Your task to perform on an android device: delete location history Image 0: 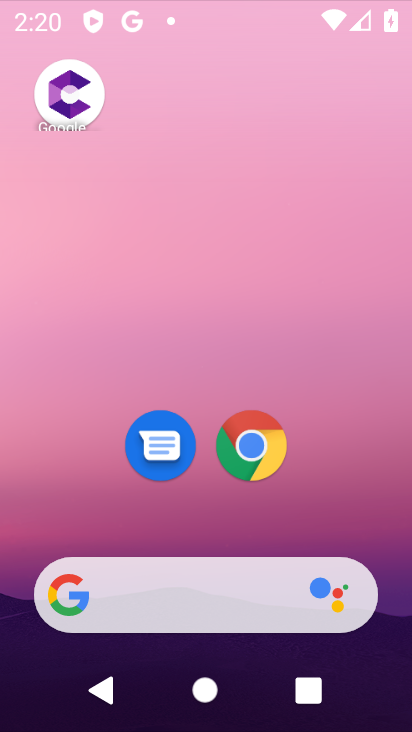
Step 0: click (203, 165)
Your task to perform on an android device: delete location history Image 1: 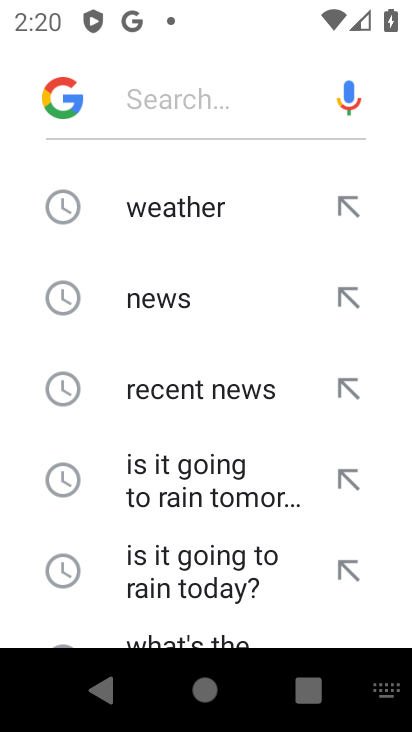
Step 1: press home button
Your task to perform on an android device: delete location history Image 2: 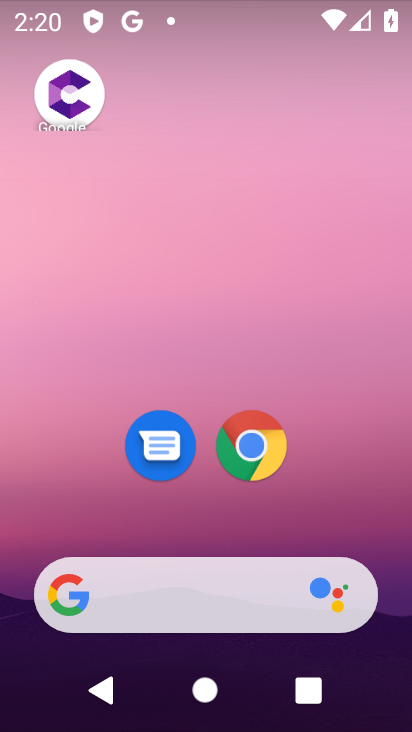
Step 2: drag from (226, 541) to (229, 194)
Your task to perform on an android device: delete location history Image 3: 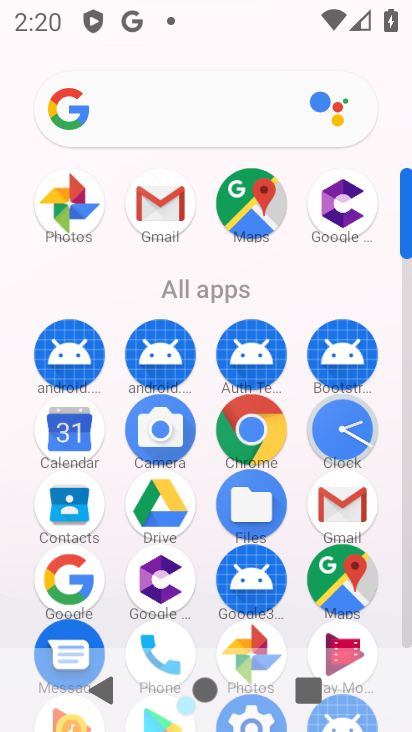
Step 3: drag from (176, 611) to (194, 259)
Your task to perform on an android device: delete location history Image 4: 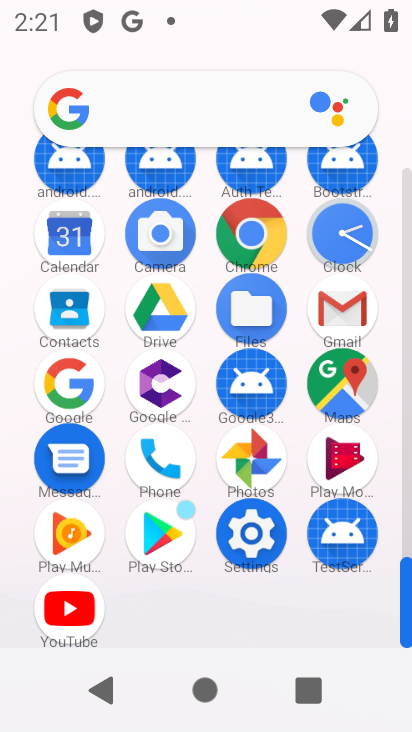
Step 4: click (256, 538)
Your task to perform on an android device: delete location history Image 5: 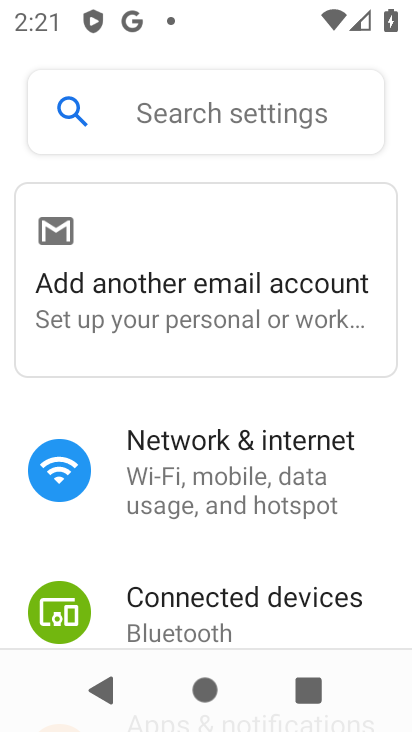
Step 5: drag from (190, 632) to (210, 208)
Your task to perform on an android device: delete location history Image 6: 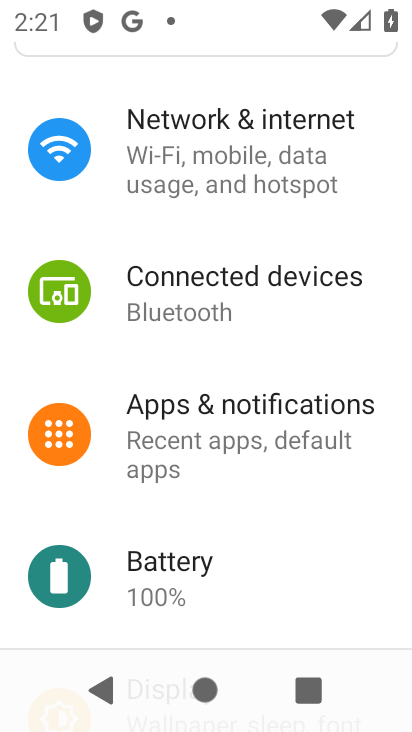
Step 6: drag from (209, 587) to (235, 191)
Your task to perform on an android device: delete location history Image 7: 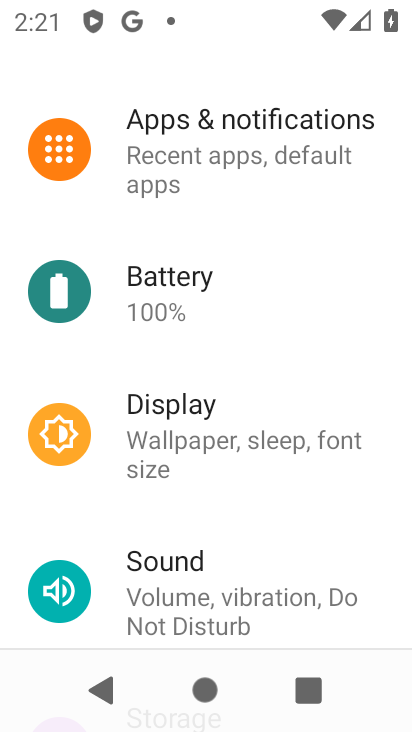
Step 7: drag from (211, 552) to (219, 178)
Your task to perform on an android device: delete location history Image 8: 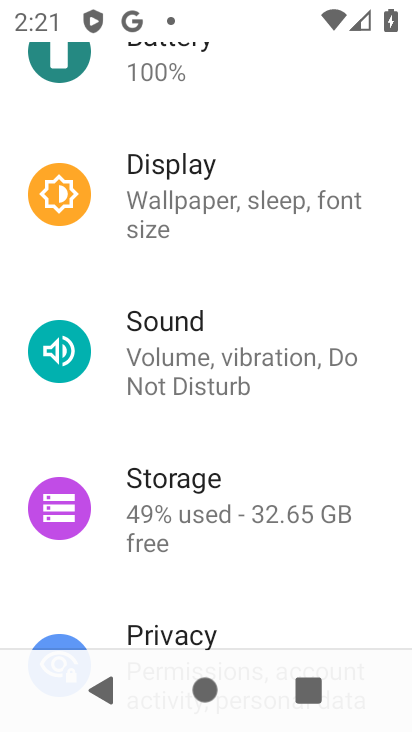
Step 8: drag from (207, 606) to (230, 271)
Your task to perform on an android device: delete location history Image 9: 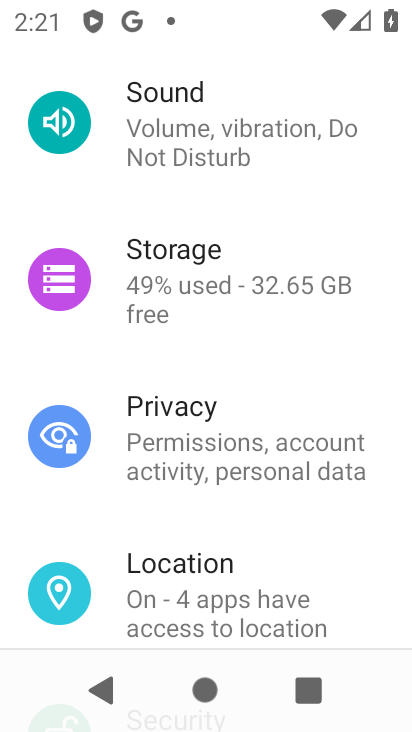
Step 9: click (196, 608)
Your task to perform on an android device: delete location history Image 10: 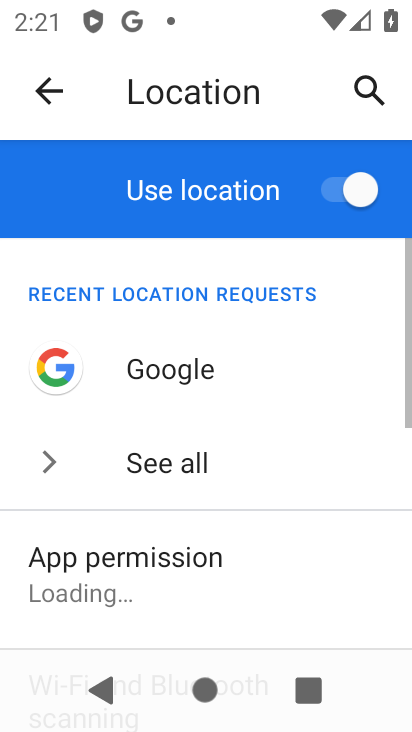
Step 10: drag from (198, 621) to (215, 240)
Your task to perform on an android device: delete location history Image 11: 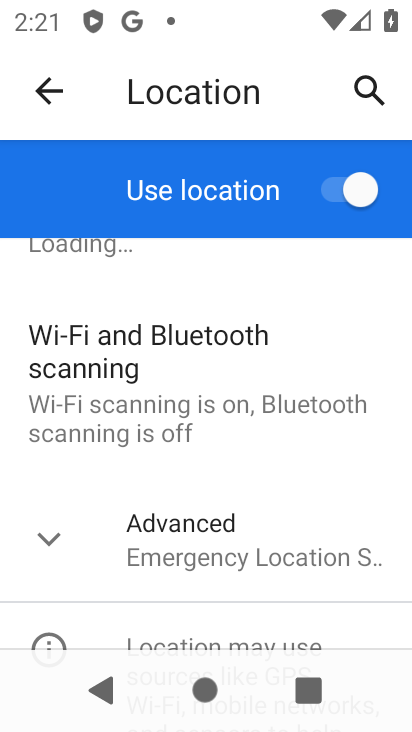
Step 11: drag from (173, 574) to (210, 283)
Your task to perform on an android device: delete location history Image 12: 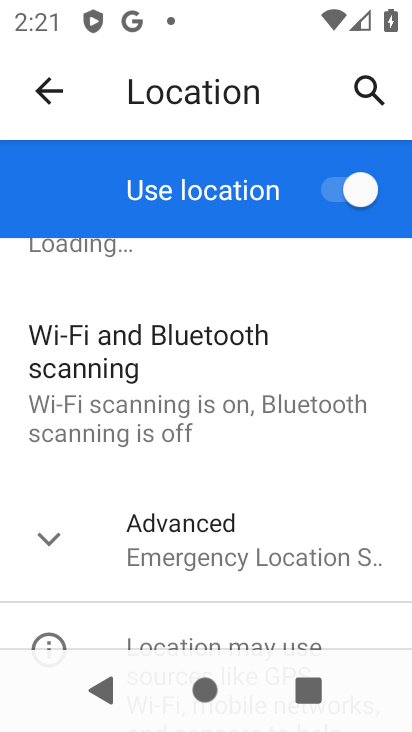
Step 12: click (204, 543)
Your task to perform on an android device: delete location history Image 13: 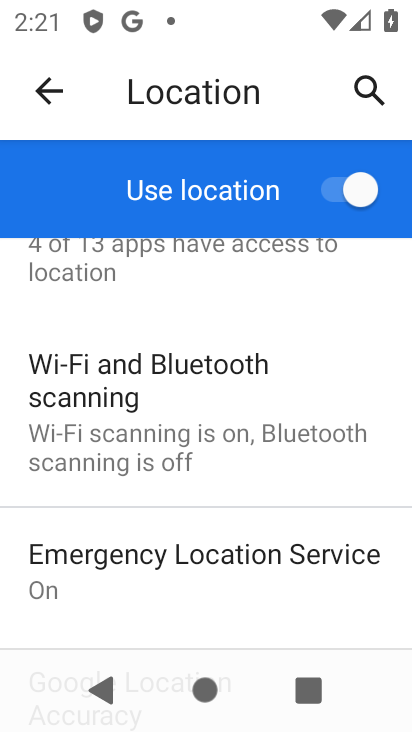
Step 13: drag from (202, 605) to (200, 253)
Your task to perform on an android device: delete location history Image 14: 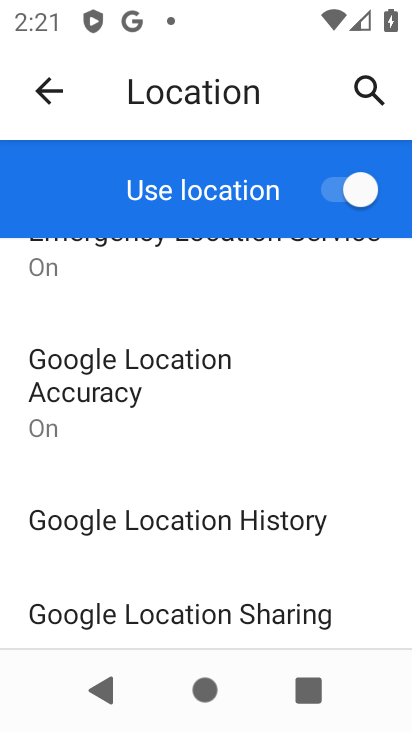
Step 14: click (124, 531)
Your task to perform on an android device: delete location history Image 15: 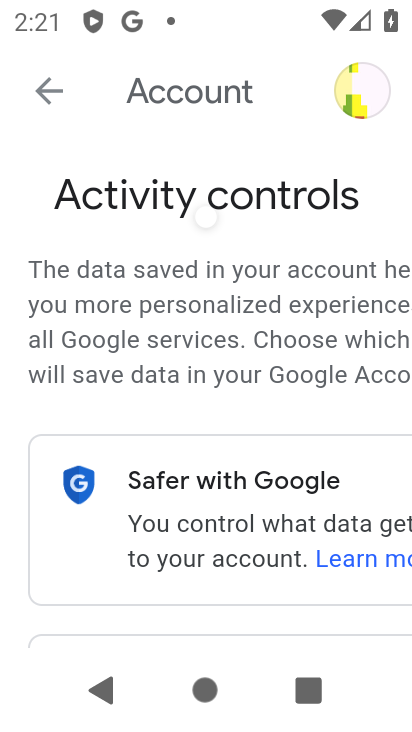
Step 15: task complete